Your task to perform on an android device: toggle notification dots Image 0: 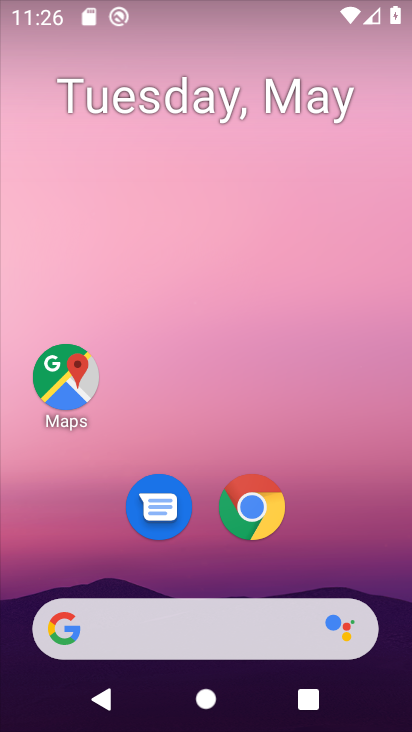
Step 0: drag from (275, 681) to (292, 133)
Your task to perform on an android device: toggle notification dots Image 1: 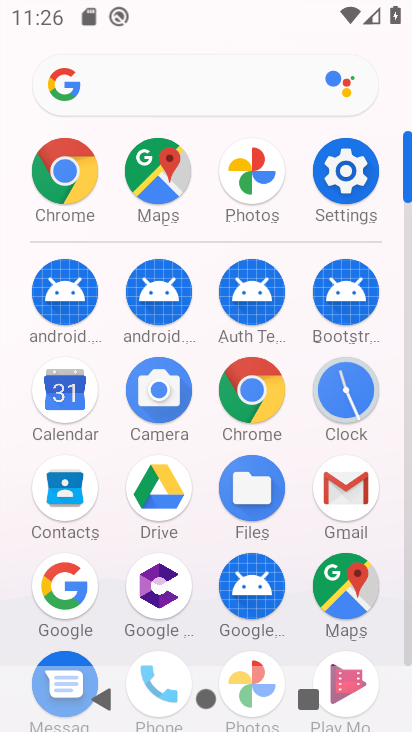
Step 1: click (345, 168)
Your task to perform on an android device: toggle notification dots Image 2: 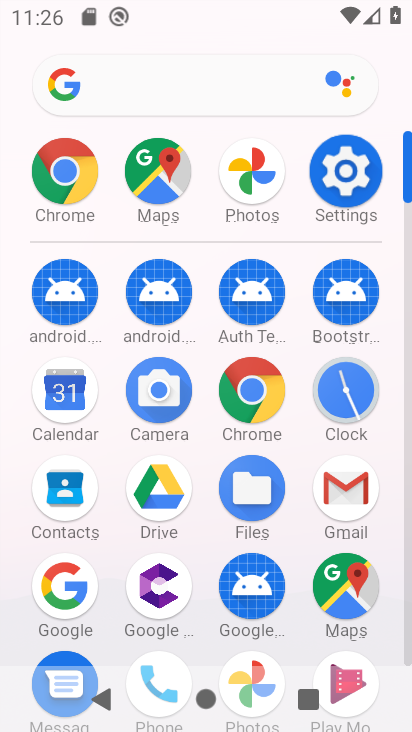
Step 2: click (345, 170)
Your task to perform on an android device: toggle notification dots Image 3: 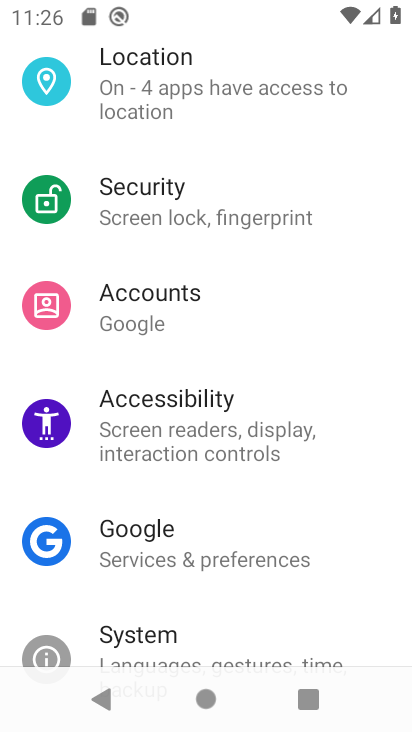
Step 3: drag from (168, 452) to (167, 163)
Your task to perform on an android device: toggle notification dots Image 4: 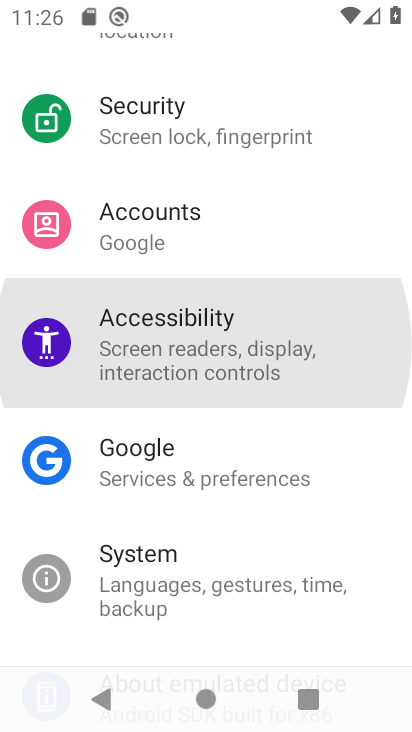
Step 4: drag from (205, 463) to (203, 182)
Your task to perform on an android device: toggle notification dots Image 5: 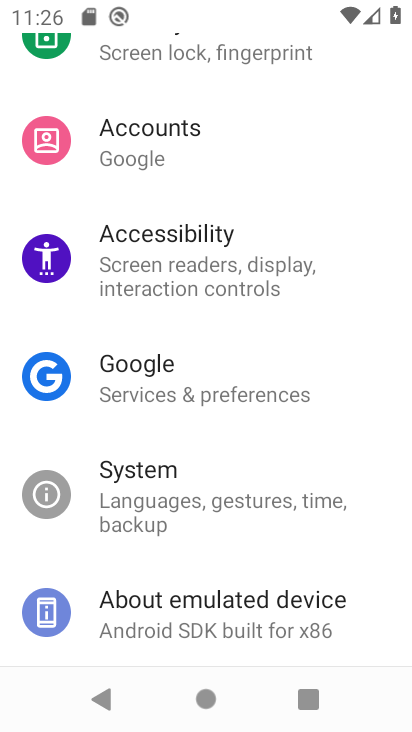
Step 5: drag from (163, 289) to (163, 514)
Your task to perform on an android device: toggle notification dots Image 6: 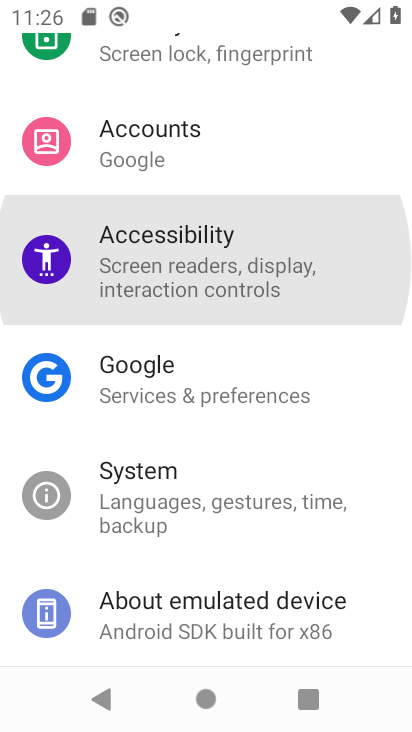
Step 6: drag from (163, 239) to (199, 566)
Your task to perform on an android device: toggle notification dots Image 7: 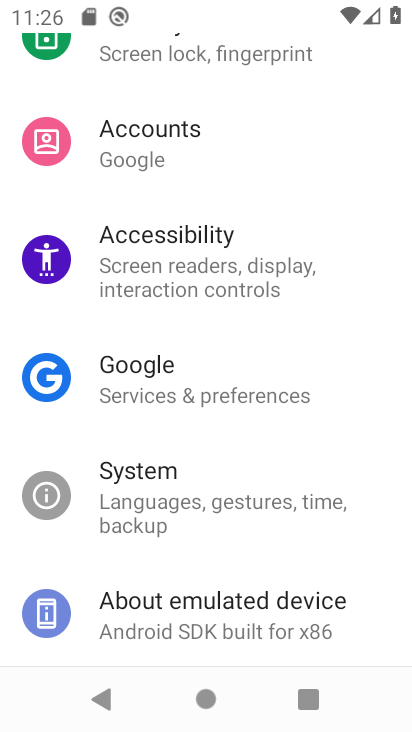
Step 7: drag from (184, 162) to (184, 492)
Your task to perform on an android device: toggle notification dots Image 8: 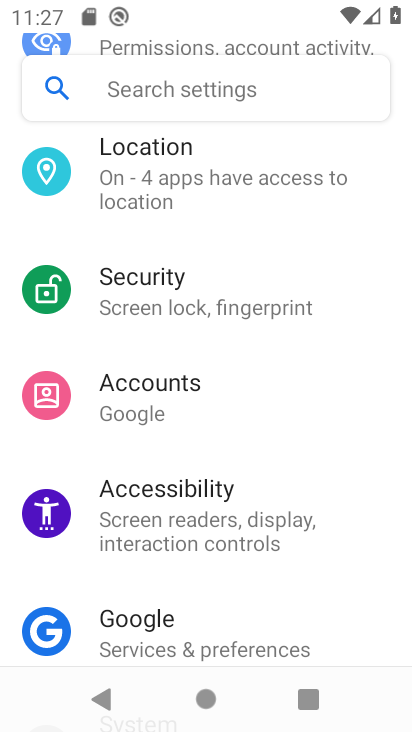
Step 8: drag from (136, 199) to (170, 506)
Your task to perform on an android device: toggle notification dots Image 9: 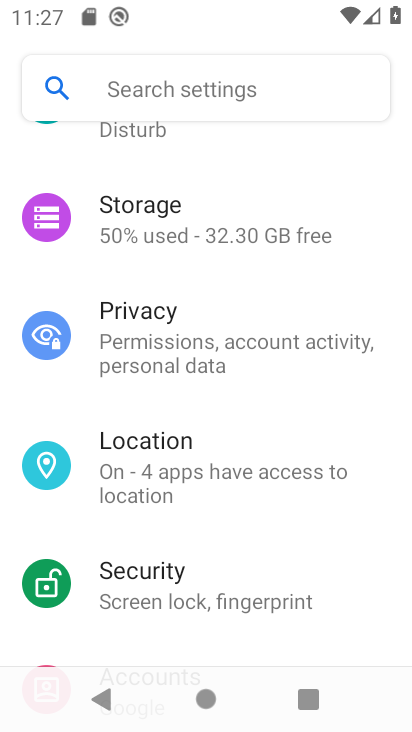
Step 9: drag from (174, 345) to (208, 460)
Your task to perform on an android device: toggle notification dots Image 10: 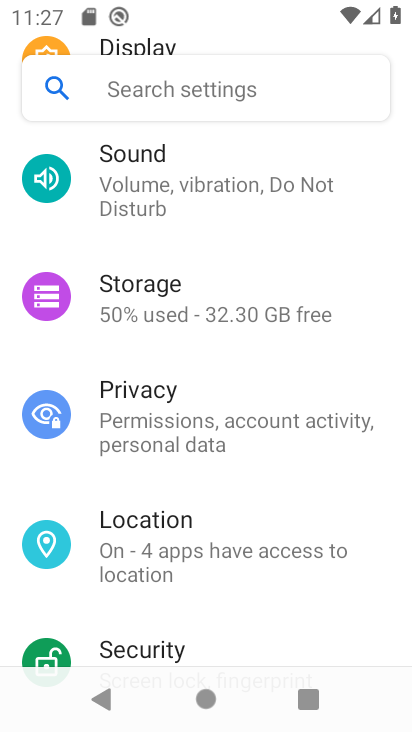
Step 10: drag from (211, 308) to (230, 529)
Your task to perform on an android device: toggle notification dots Image 11: 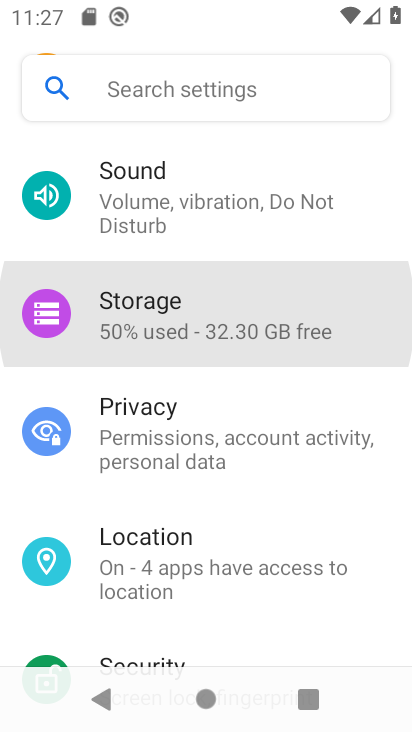
Step 11: drag from (180, 286) to (217, 591)
Your task to perform on an android device: toggle notification dots Image 12: 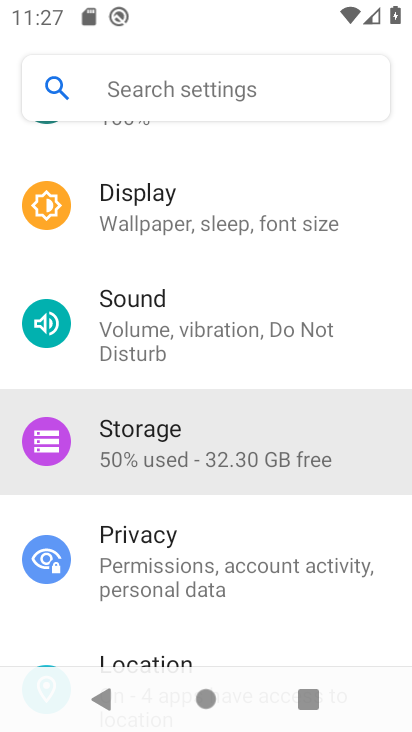
Step 12: drag from (191, 338) to (212, 581)
Your task to perform on an android device: toggle notification dots Image 13: 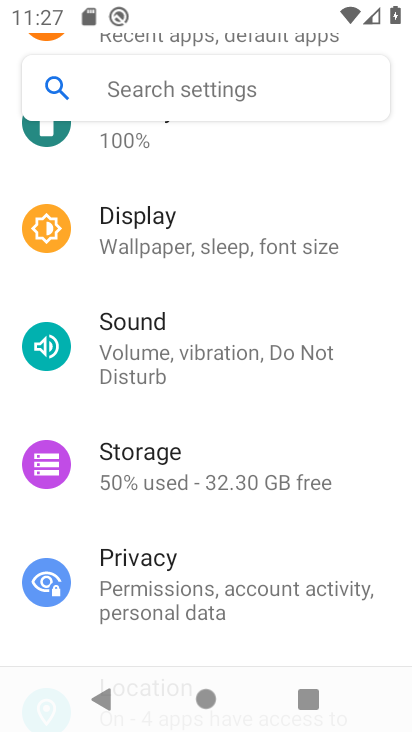
Step 13: drag from (211, 301) to (232, 561)
Your task to perform on an android device: toggle notification dots Image 14: 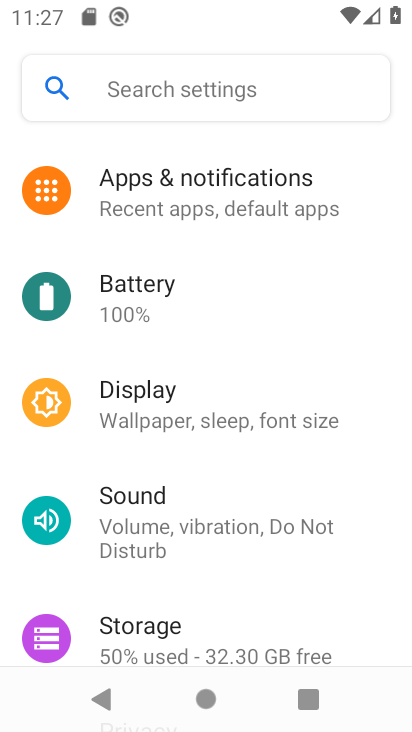
Step 14: drag from (184, 343) to (202, 584)
Your task to perform on an android device: toggle notification dots Image 15: 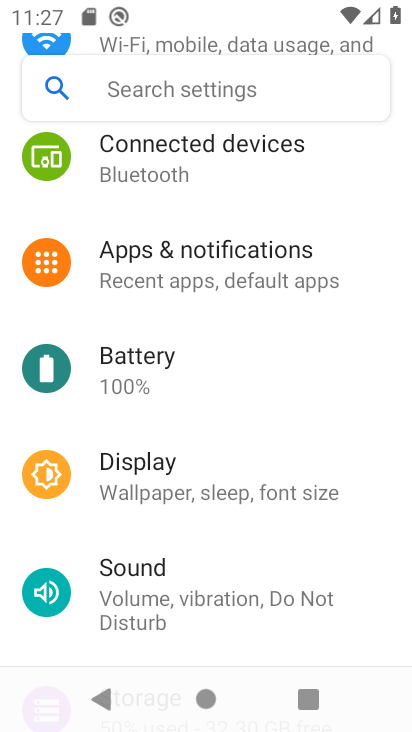
Step 15: drag from (154, 295) to (198, 542)
Your task to perform on an android device: toggle notification dots Image 16: 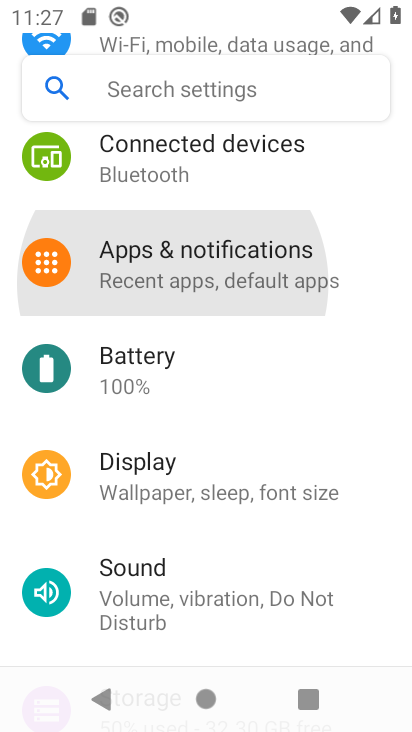
Step 16: drag from (198, 305) to (251, 625)
Your task to perform on an android device: toggle notification dots Image 17: 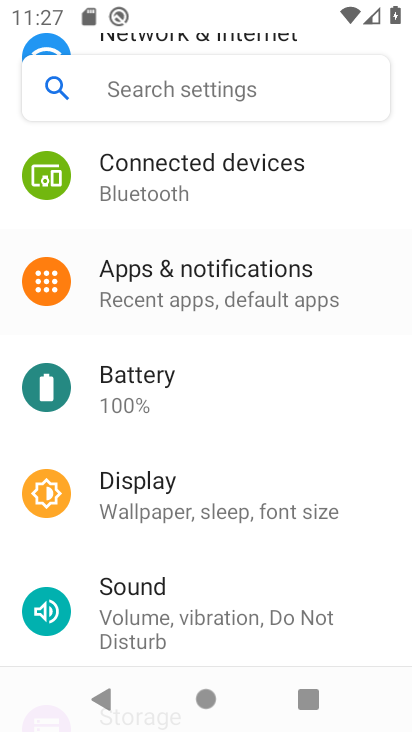
Step 17: drag from (172, 288) to (212, 593)
Your task to perform on an android device: toggle notification dots Image 18: 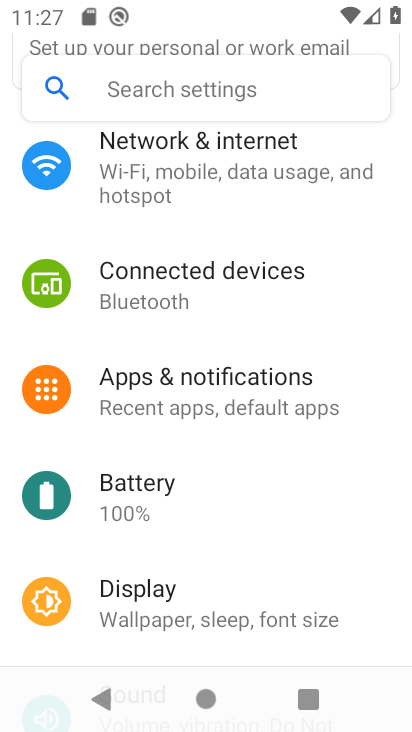
Step 18: click (192, 377)
Your task to perform on an android device: toggle notification dots Image 19: 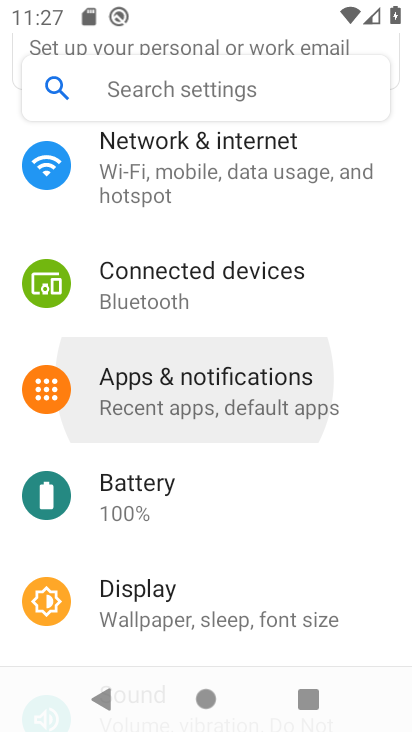
Step 19: click (192, 377)
Your task to perform on an android device: toggle notification dots Image 20: 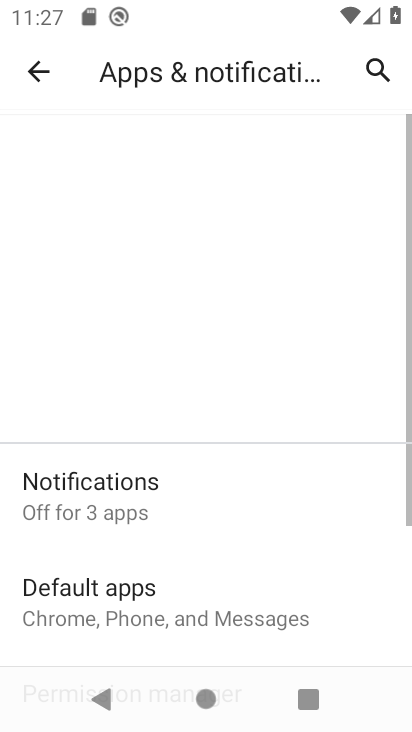
Step 20: click (203, 372)
Your task to perform on an android device: toggle notification dots Image 21: 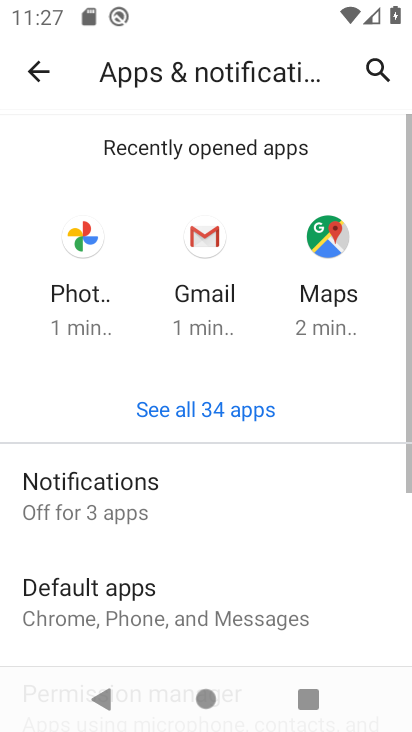
Step 21: drag from (243, 485) to (270, 218)
Your task to perform on an android device: toggle notification dots Image 22: 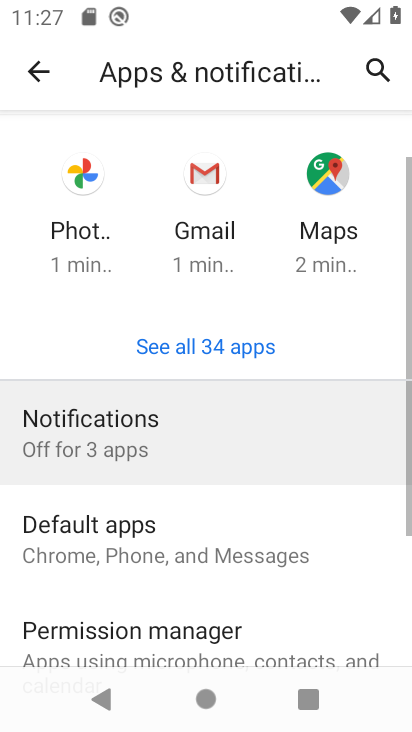
Step 22: drag from (252, 517) to (270, 208)
Your task to perform on an android device: toggle notification dots Image 23: 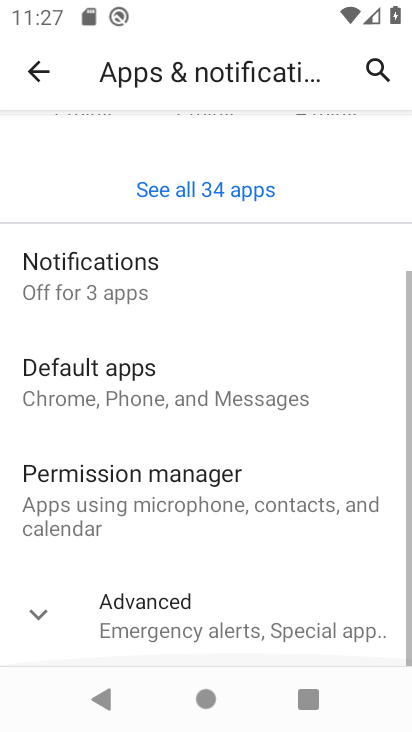
Step 23: drag from (238, 474) to (260, 211)
Your task to perform on an android device: toggle notification dots Image 24: 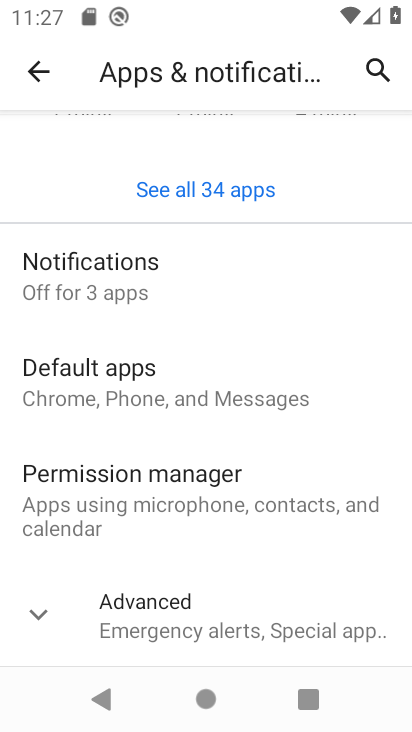
Step 24: drag from (267, 482) to (306, 150)
Your task to perform on an android device: toggle notification dots Image 25: 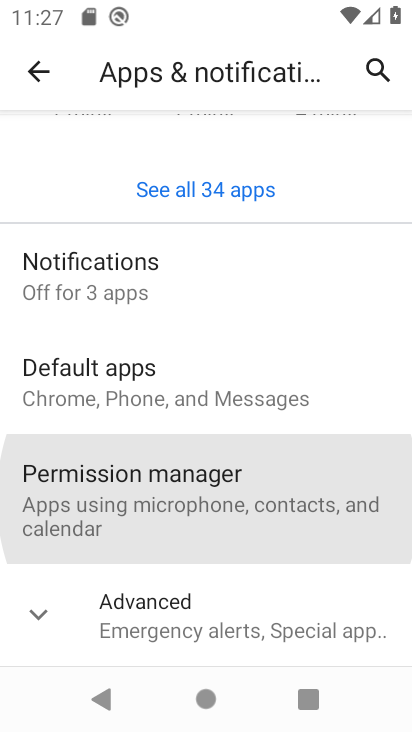
Step 25: drag from (282, 443) to (282, 128)
Your task to perform on an android device: toggle notification dots Image 26: 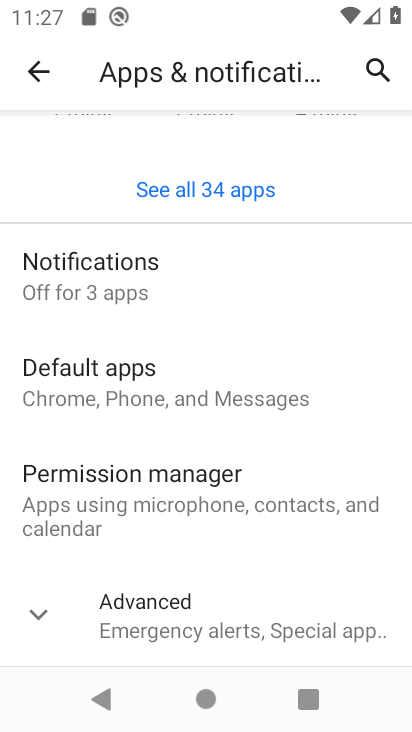
Step 26: drag from (229, 437) to (241, 203)
Your task to perform on an android device: toggle notification dots Image 27: 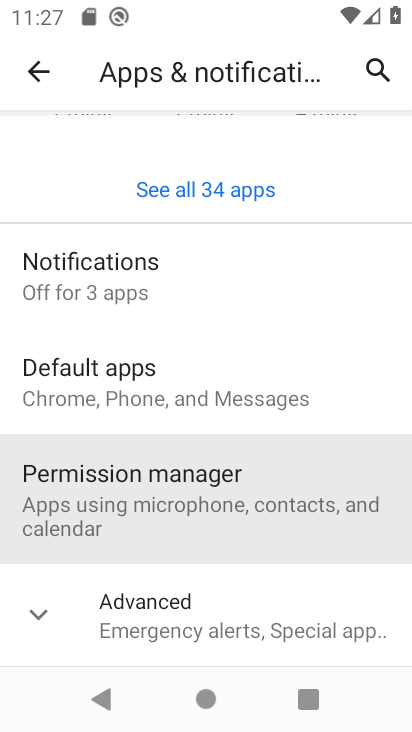
Step 27: drag from (223, 371) to (223, 202)
Your task to perform on an android device: toggle notification dots Image 28: 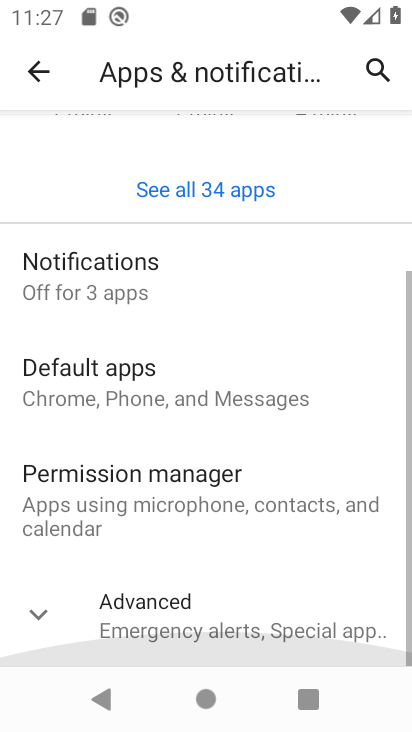
Step 28: drag from (224, 400) to (251, 102)
Your task to perform on an android device: toggle notification dots Image 29: 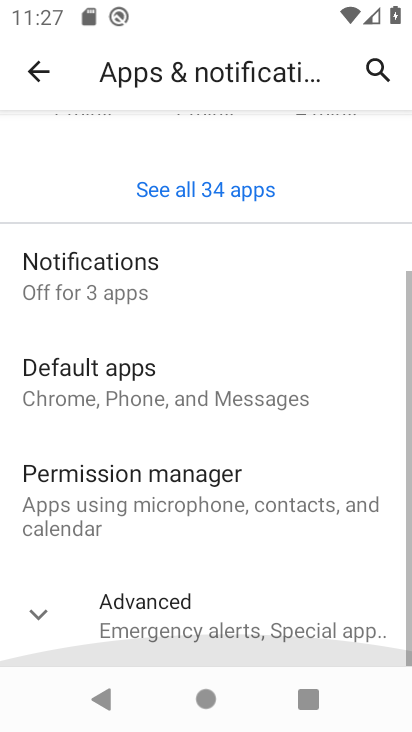
Step 29: drag from (274, 411) to (300, 155)
Your task to perform on an android device: toggle notification dots Image 30: 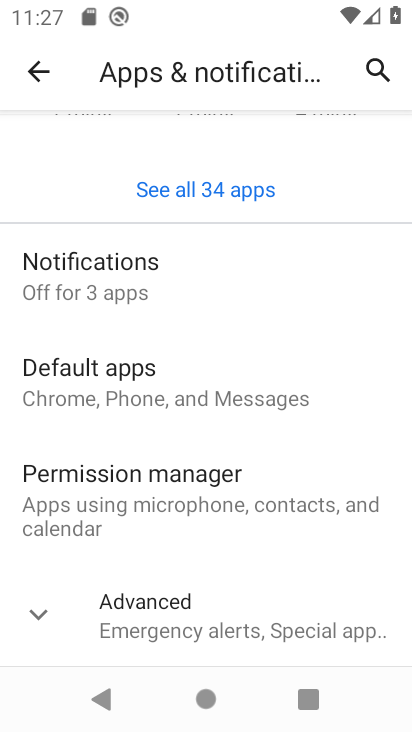
Step 30: click (88, 287)
Your task to perform on an android device: toggle notification dots Image 31: 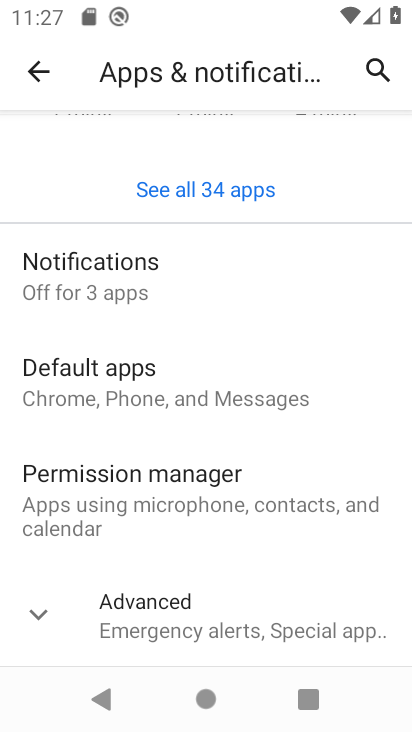
Step 31: click (92, 282)
Your task to perform on an android device: toggle notification dots Image 32: 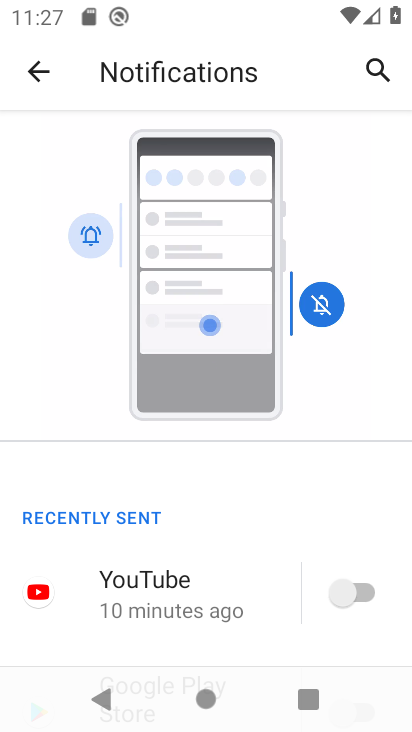
Step 32: drag from (257, 486) to (257, 251)
Your task to perform on an android device: toggle notification dots Image 33: 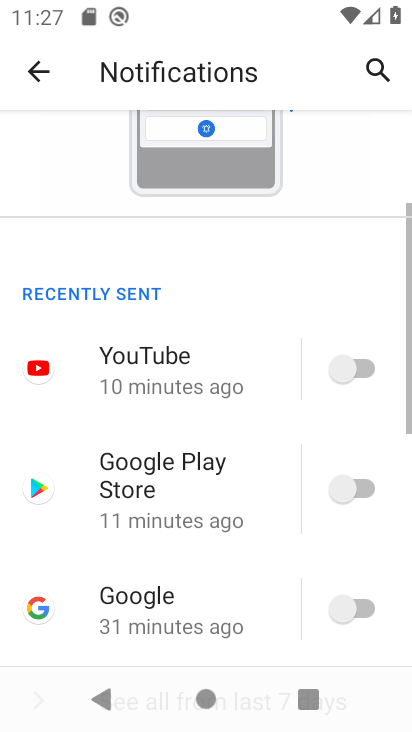
Step 33: drag from (314, 422) to (333, 109)
Your task to perform on an android device: toggle notification dots Image 34: 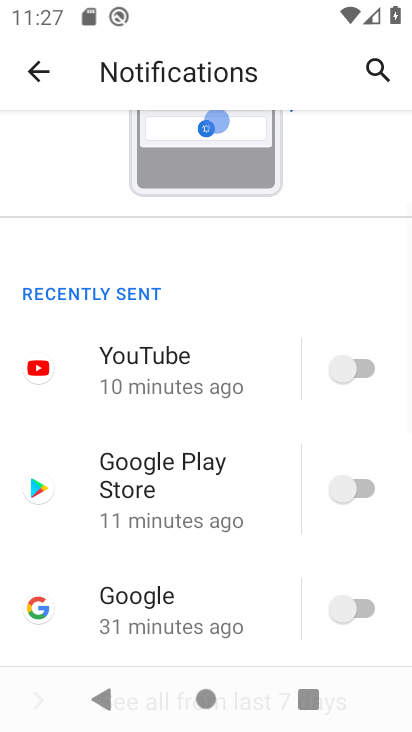
Step 34: drag from (279, 491) to (300, 224)
Your task to perform on an android device: toggle notification dots Image 35: 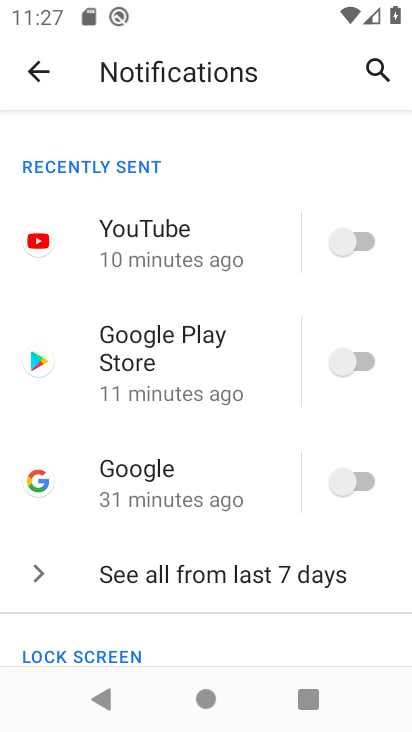
Step 35: drag from (204, 492) to (214, 219)
Your task to perform on an android device: toggle notification dots Image 36: 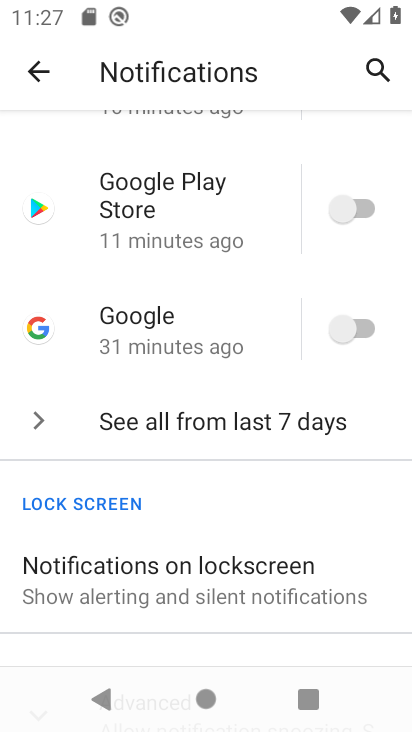
Step 36: drag from (236, 551) to (225, 218)
Your task to perform on an android device: toggle notification dots Image 37: 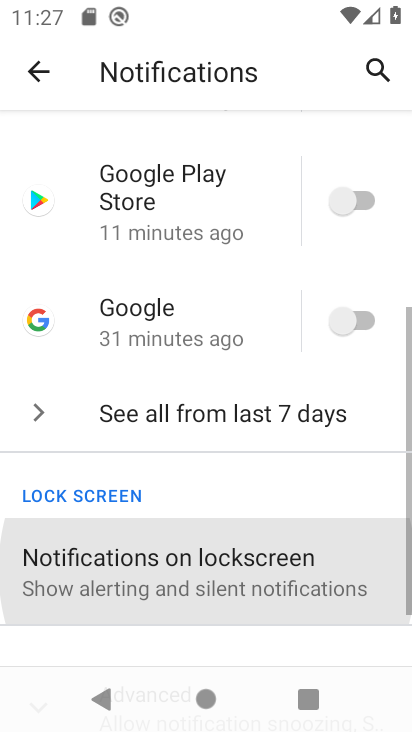
Step 37: drag from (225, 438) to (234, 214)
Your task to perform on an android device: toggle notification dots Image 38: 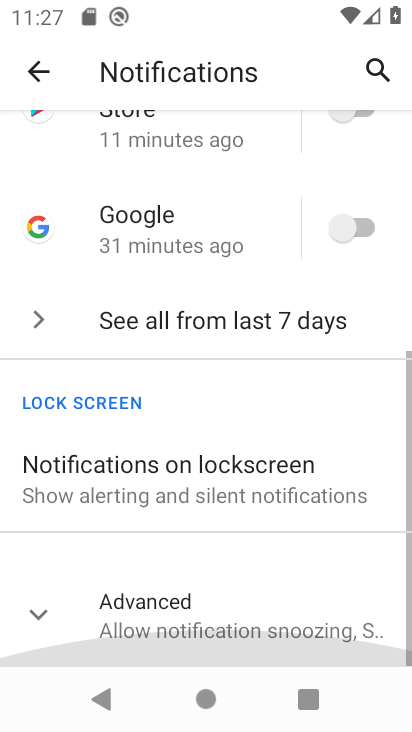
Step 38: drag from (226, 391) to (262, 131)
Your task to perform on an android device: toggle notification dots Image 39: 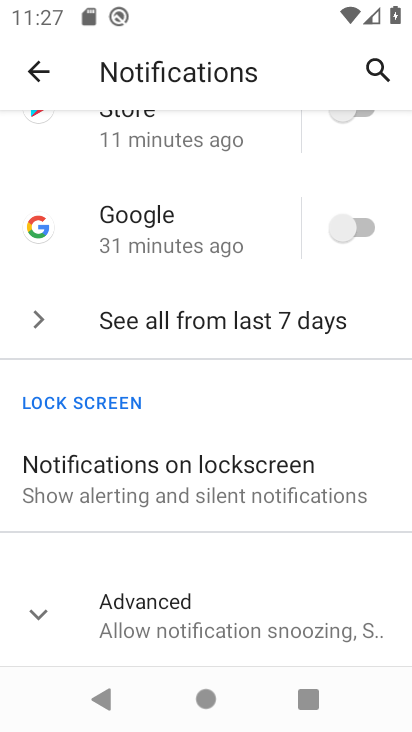
Step 39: click (142, 621)
Your task to perform on an android device: toggle notification dots Image 40: 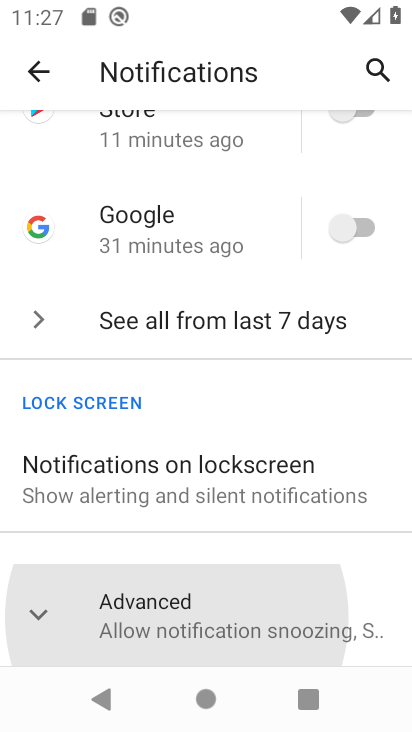
Step 40: click (142, 619)
Your task to perform on an android device: toggle notification dots Image 41: 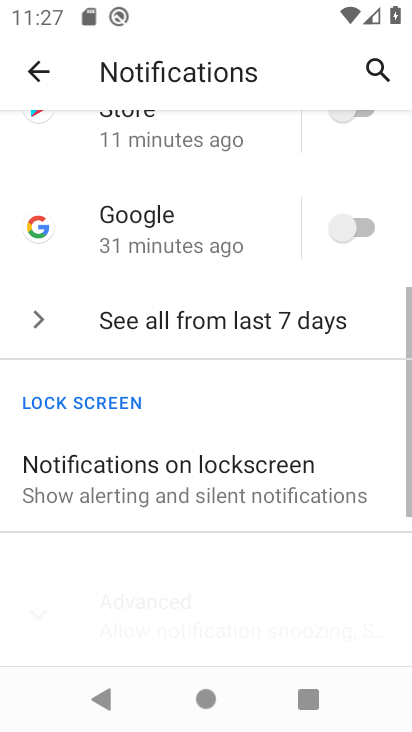
Step 41: click (142, 618)
Your task to perform on an android device: toggle notification dots Image 42: 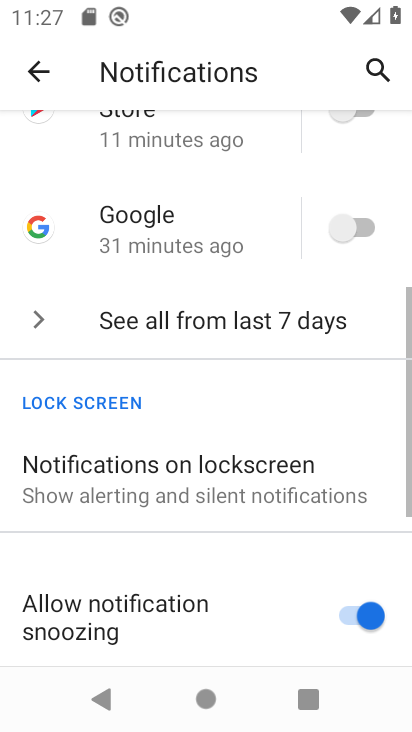
Step 42: drag from (258, 539) to (226, 319)
Your task to perform on an android device: toggle notification dots Image 43: 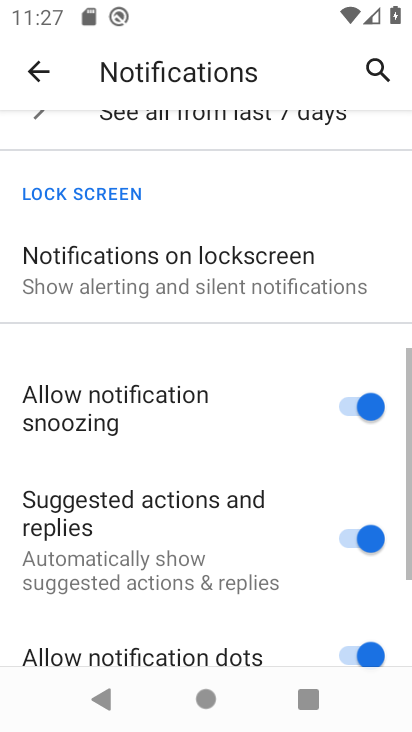
Step 43: drag from (223, 466) to (223, 167)
Your task to perform on an android device: toggle notification dots Image 44: 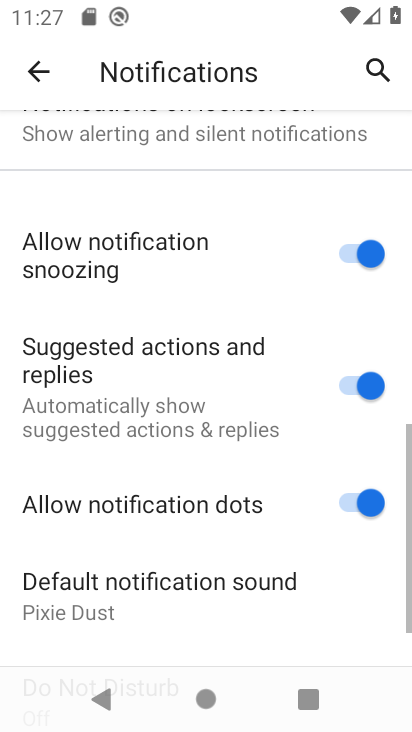
Step 44: drag from (226, 503) to (226, 227)
Your task to perform on an android device: toggle notification dots Image 45: 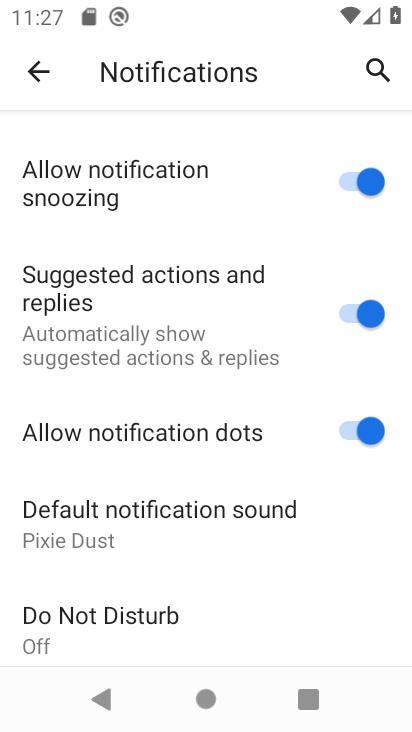
Step 45: click (360, 434)
Your task to perform on an android device: toggle notification dots Image 46: 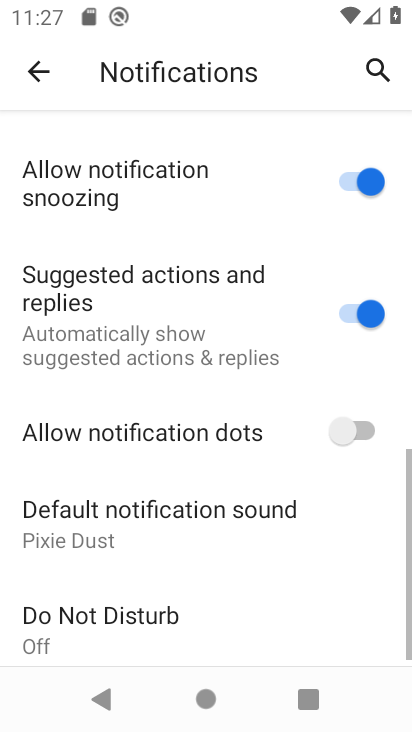
Step 46: task complete